Your task to perform on an android device: all mails in gmail Image 0: 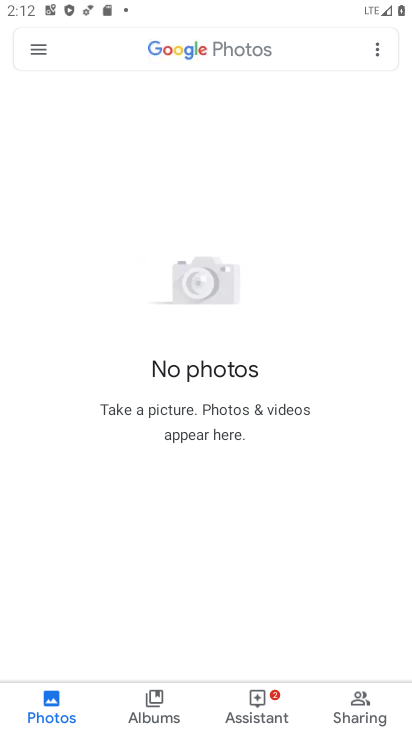
Step 0: press home button
Your task to perform on an android device: all mails in gmail Image 1: 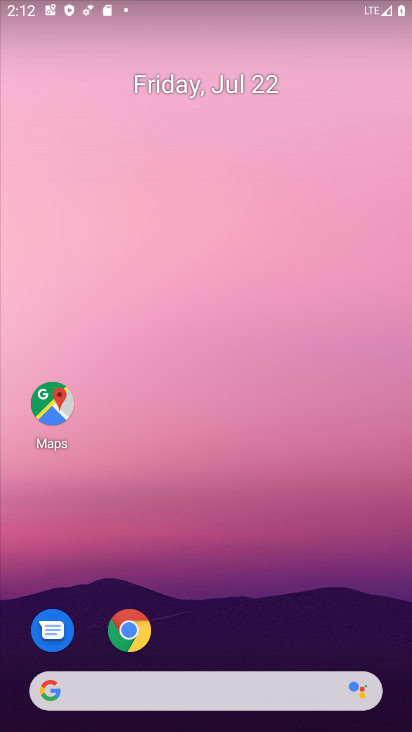
Step 1: drag from (184, 666) to (224, 30)
Your task to perform on an android device: all mails in gmail Image 2: 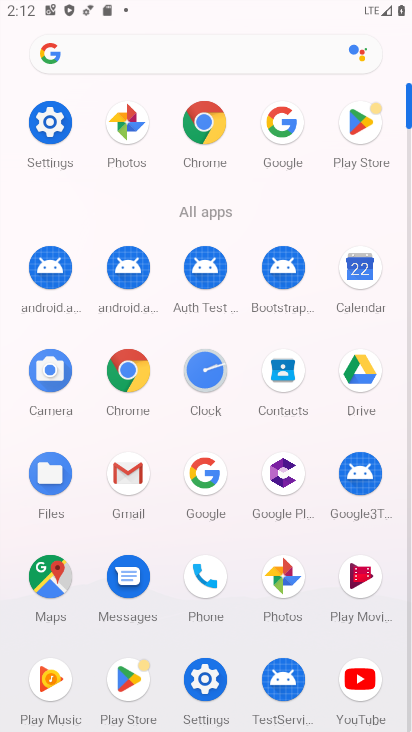
Step 2: click (135, 480)
Your task to perform on an android device: all mails in gmail Image 3: 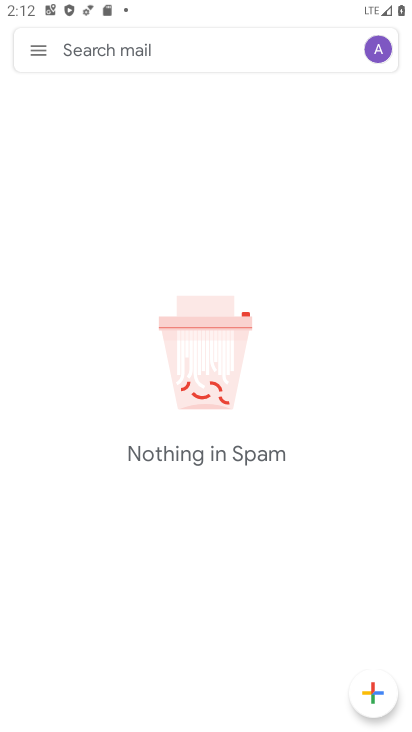
Step 3: click (49, 48)
Your task to perform on an android device: all mails in gmail Image 4: 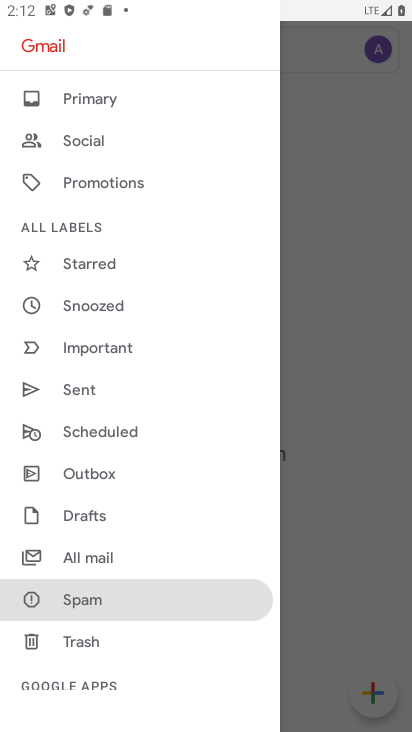
Step 4: drag from (93, 123) to (123, 439)
Your task to perform on an android device: all mails in gmail Image 5: 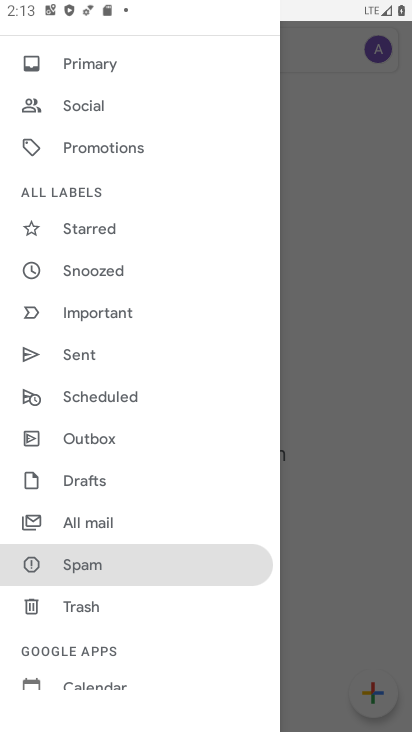
Step 5: click (94, 530)
Your task to perform on an android device: all mails in gmail Image 6: 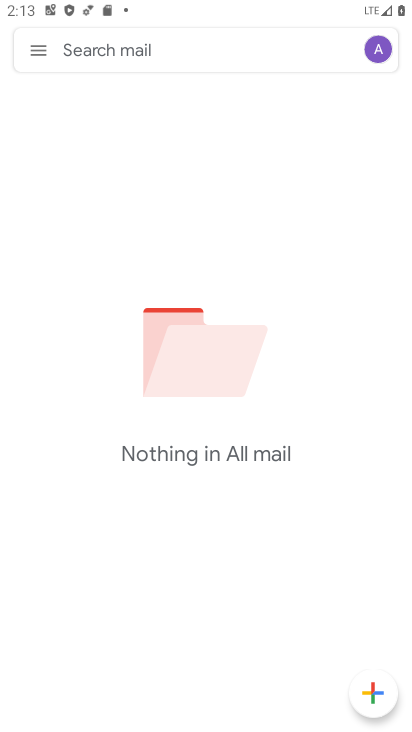
Step 6: task complete